Your task to perform on an android device: set default search engine in the chrome app Image 0: 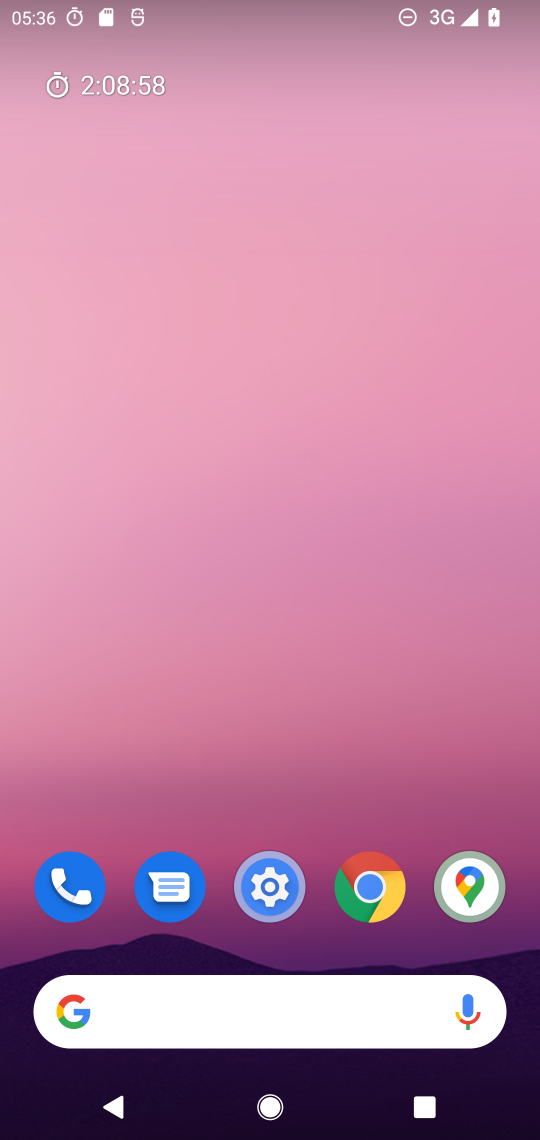
Step 0: press home button
Your task to perform on an android device: set default search engine in the chrome app Image 1: 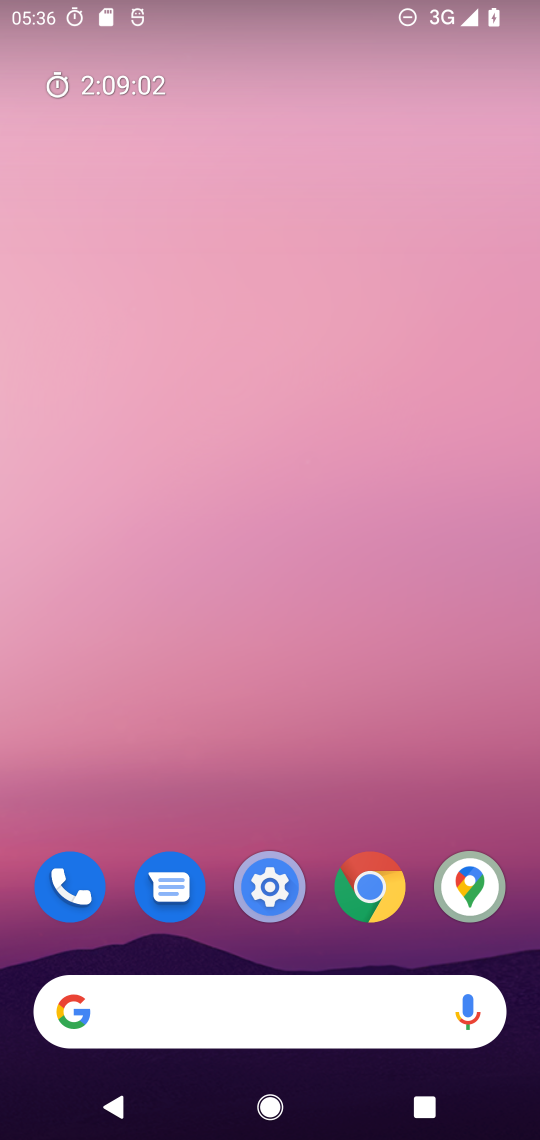
Step 1: drag from (417, 800) to (465, 269)
Your task to perform on an android device: set default search engine in the chrome app Image 2: 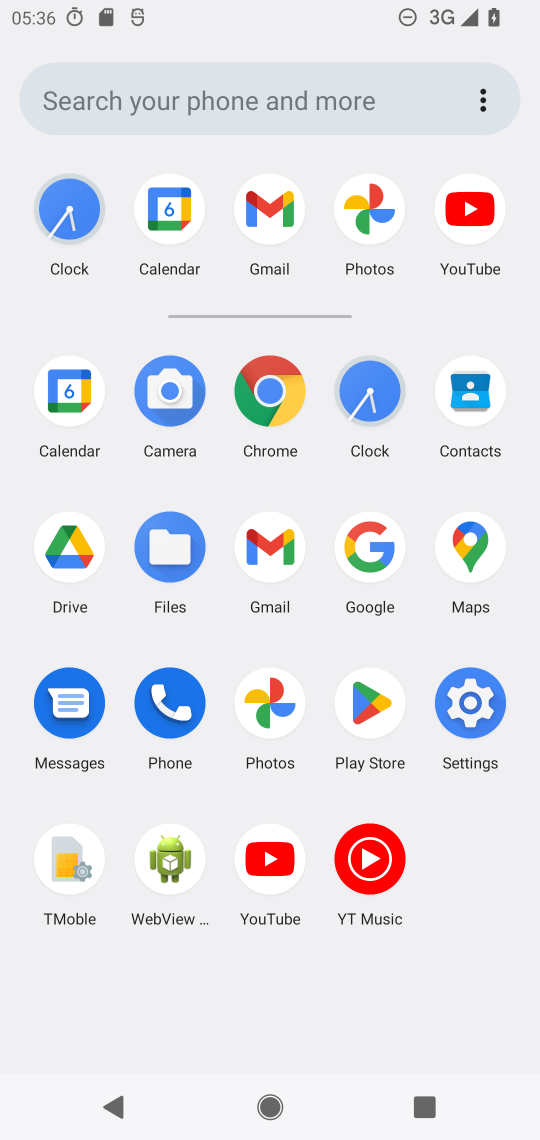
Step 2: click (277, 388)
Your task to perform on an android device: set default search engine in the chrome app Image 3: 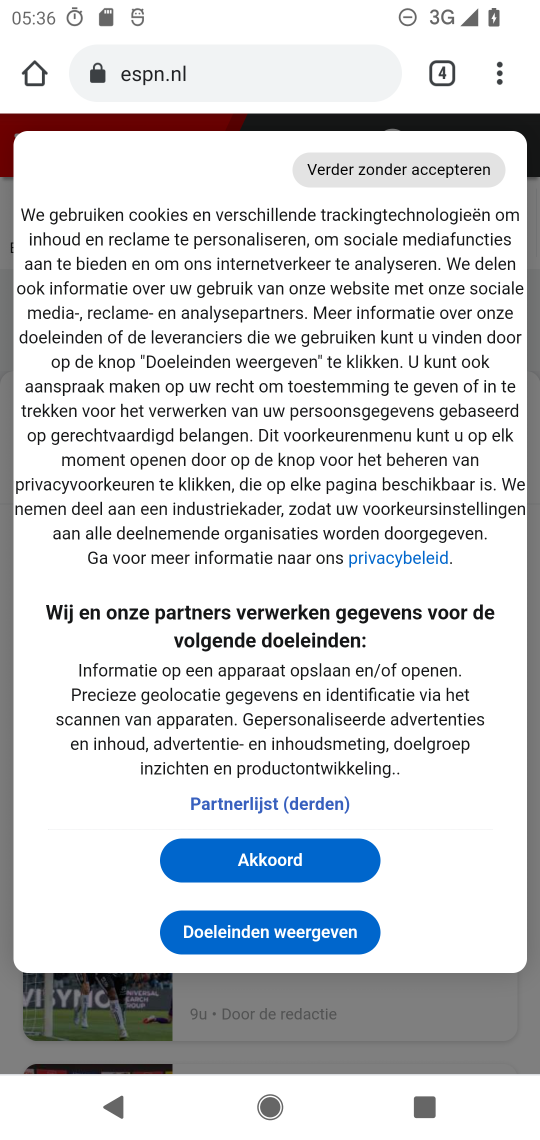
Step 3: click (499, 78)
Your task to perform on an android device: set default search engine in the chrome app Image 4: 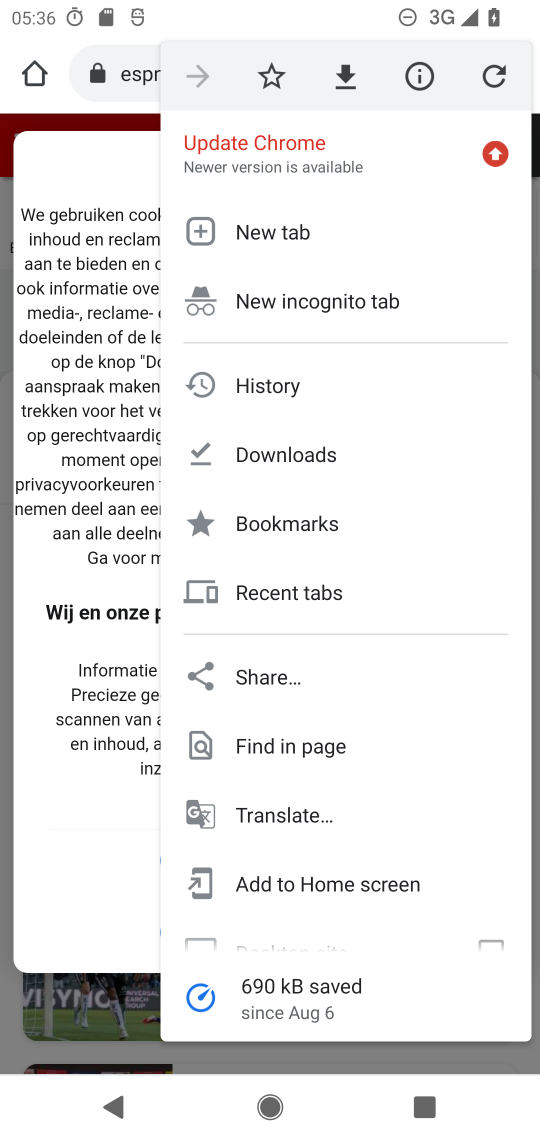
Step 4: drag from (380, 796) to (396, 567)
Your task to perform on an android device: set default search engine in the chrome app Image 5: 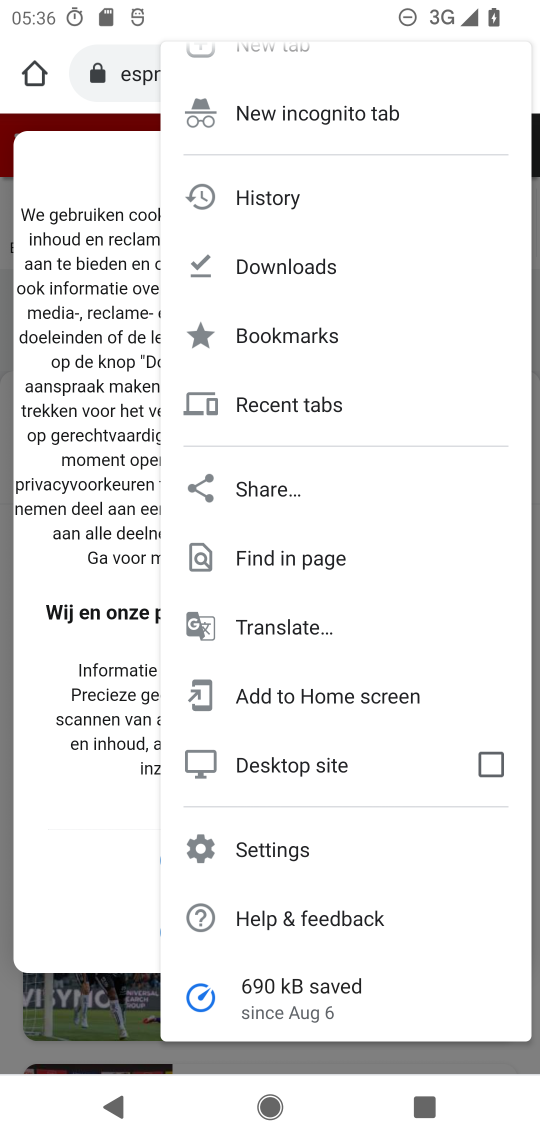
Step 5: click (370, 839)
Your task to perform on an android device: set default search engine in the chrome app Image 6: 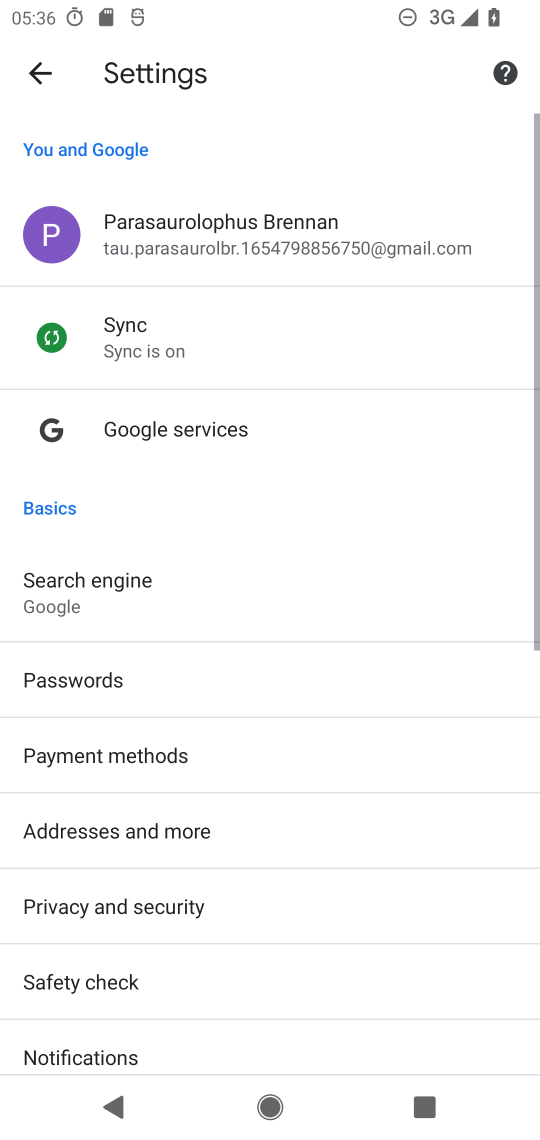
Step 6: drag from (392, 872) to (431, 644)
Your task to perform on an android device: set default search engine in the chrome app Image 7: 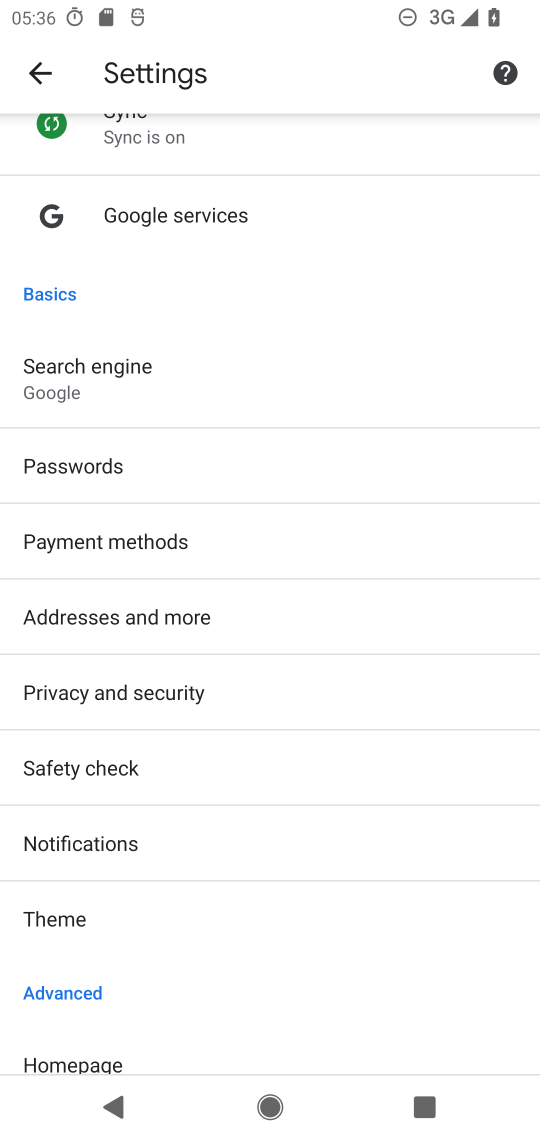
Step 7: click (333, 389)
Your task to perform on an android device: set default search engine in the chrome app Image 8: 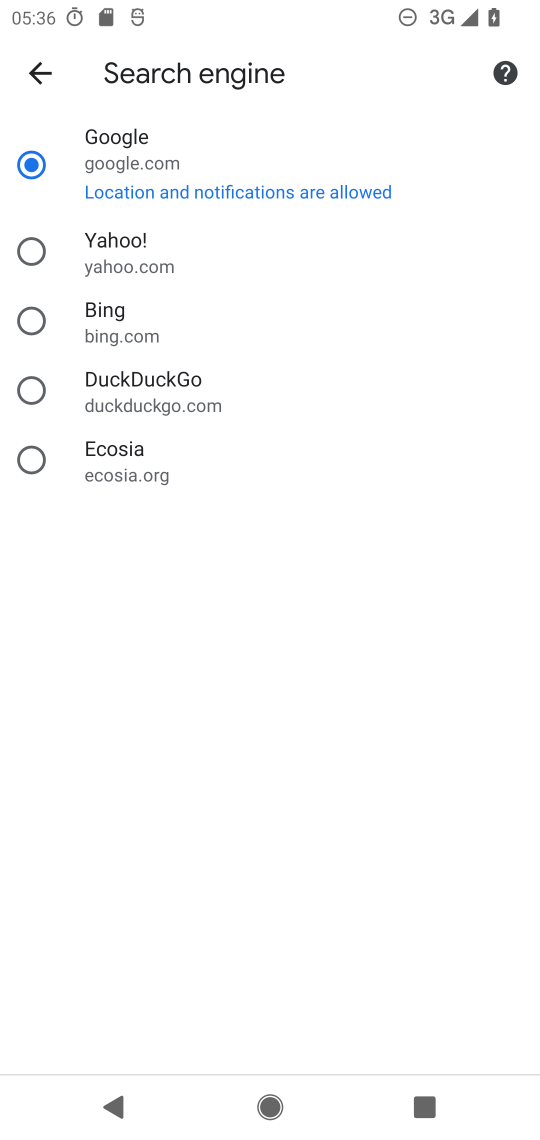
Step 8: click (150, 305)
Your task to perform on an android device: set default search engine in the chrome app Image 9: 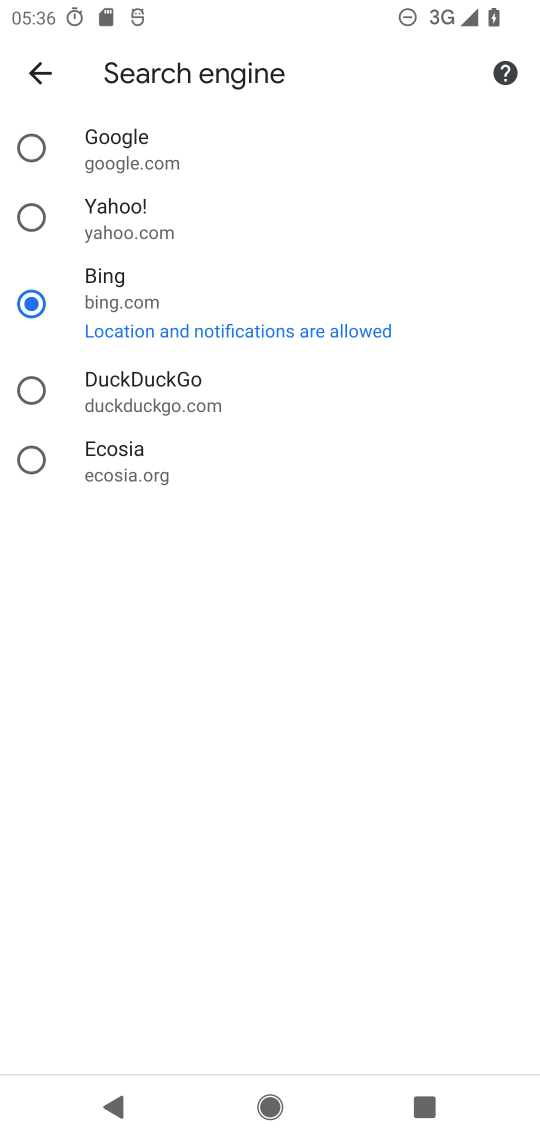
Step 9: task complete